Your task to perform on an android device: turn off priority inbox in the gmail app Image 0: 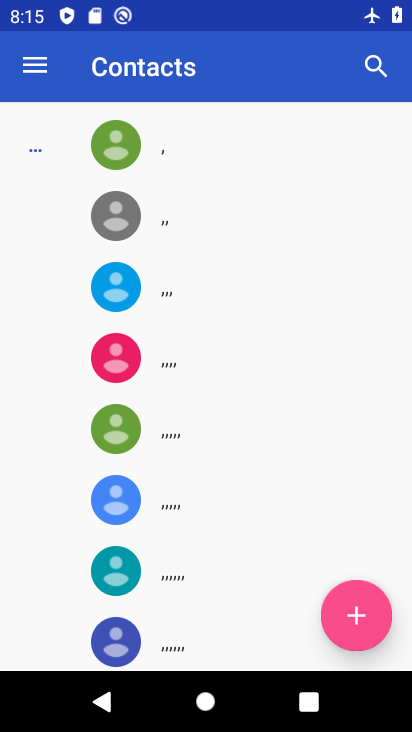
Step 0: press home button
Your task to perform on an android device: turn off priority inbox in the gmail app Image 1: 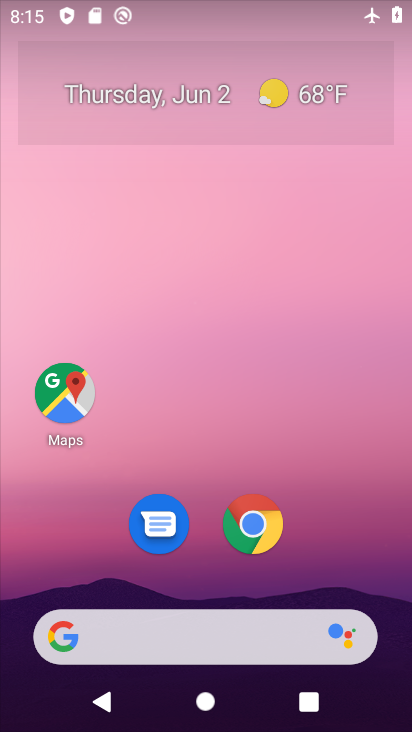
Step 1: drag from (328, 567) to (374, 14)
Your task to perform on an android device: turn off priority inbox in the gmail app Image 2: 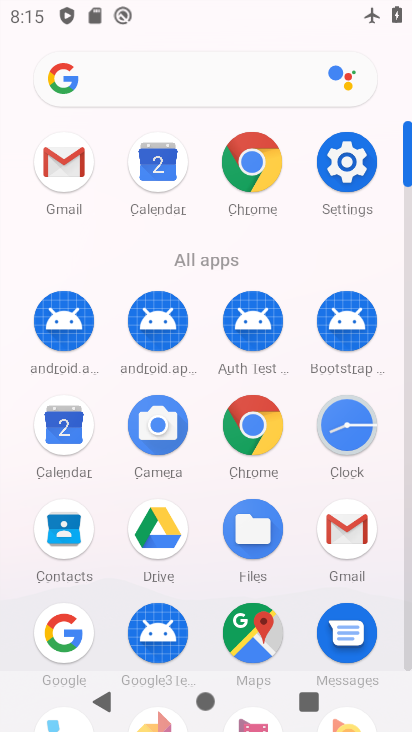
Step 2: click (68, 157)
Your task to perform on an android device: turn off priority inbox in the gmail app Image 3: 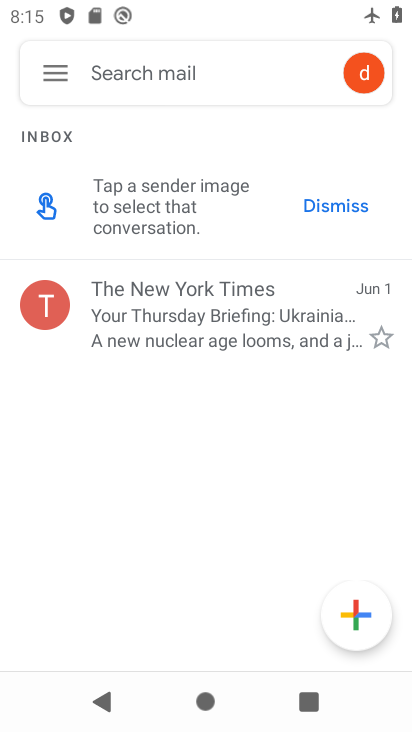
Step 3: click (51, 72)
Your task to perform on an android device: turn off priority inbox in the gmail app Image 4: 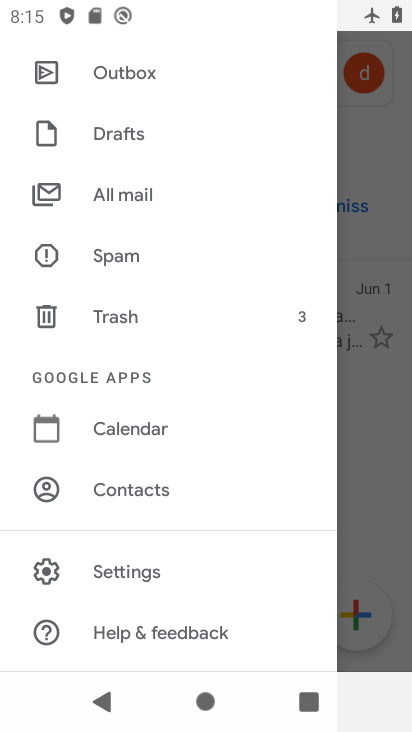
Step 4: click (118, 561)
Your task to perform on an android device: turn off priority inbox in the gmail app Image 5: 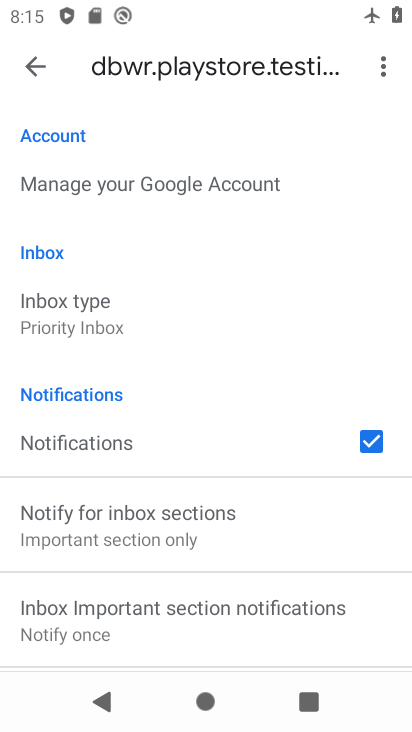
Step 5: click (99, 321)
Your task to perform on an android device: turn off priority inbox in the gmail app Image 6: 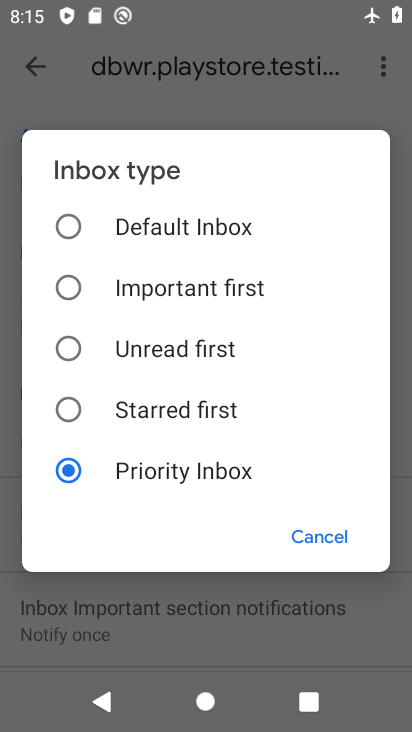
Step 6: click (71, 221)
Your task to perform on an android device: turn off priority inbox in the gmail app Image 7: 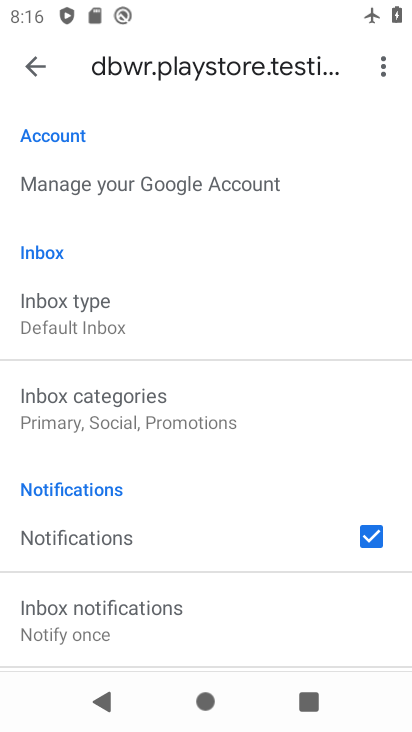
Step 7: task complete